Your task to perform on an android device: turn on the 12-hour format for clock Image 0: 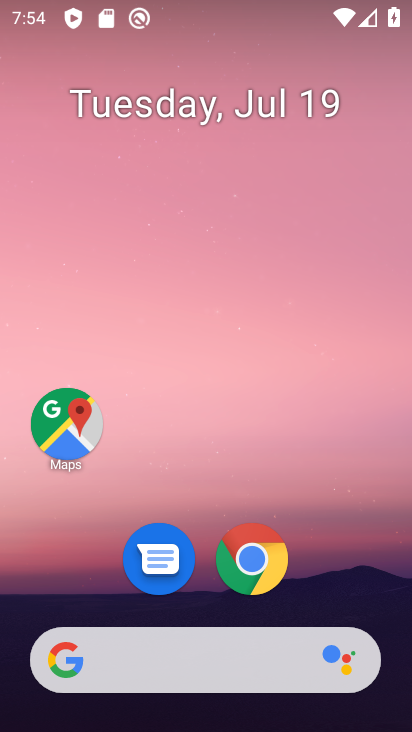
Step 0: drag from (78, 586) to (249, 0)
Your task to perform on an android device: turn on the 12-hour format for clock Image 1: 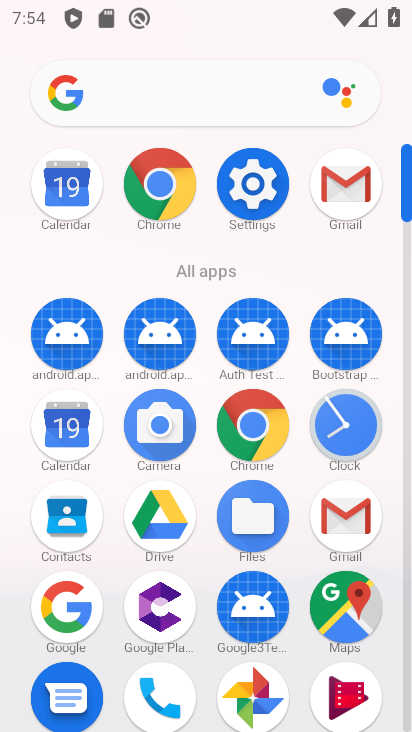
Step 1: click (338, 446)
Your task to perform on an android device: turn on the 12-hour format for clock Image 2: 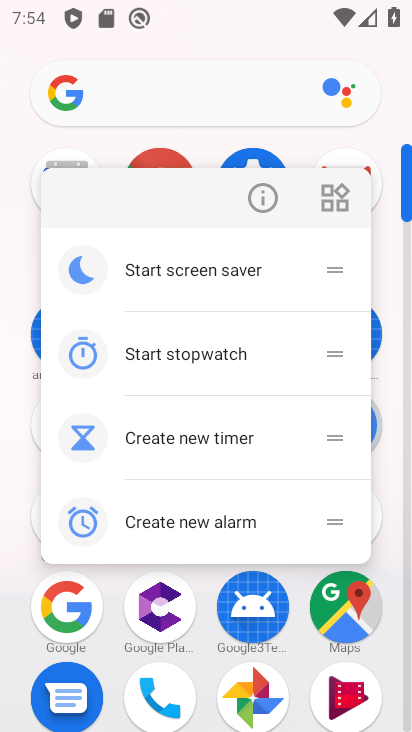
Step 2: click (213, 33)
Your task to perform on an android device: turn on the 12-hour format for clock Image 3: 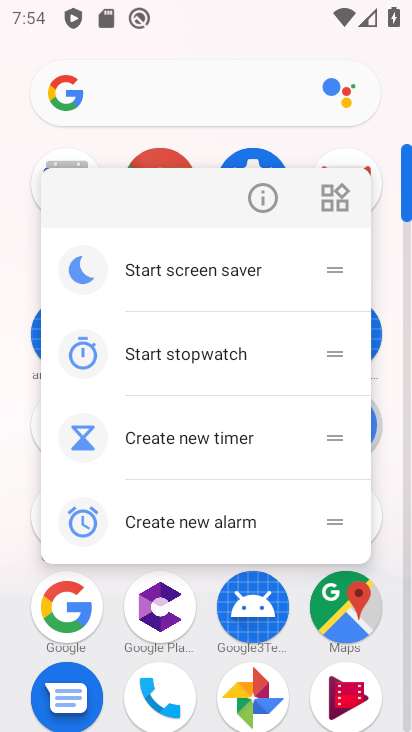
Step 3: click (14, 461)
Your task to perform on an android device: turn on the 12-hour format for clock Image 4: 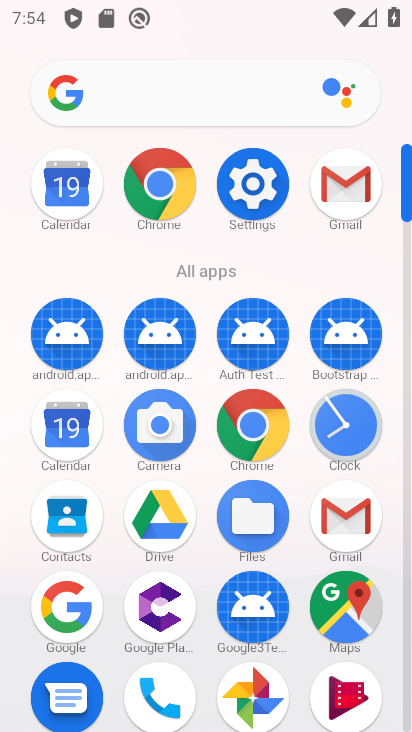
Step 4: click (361, 425)
Your task to perform on an android device: turn on the 12-hour format for clock Image 5: 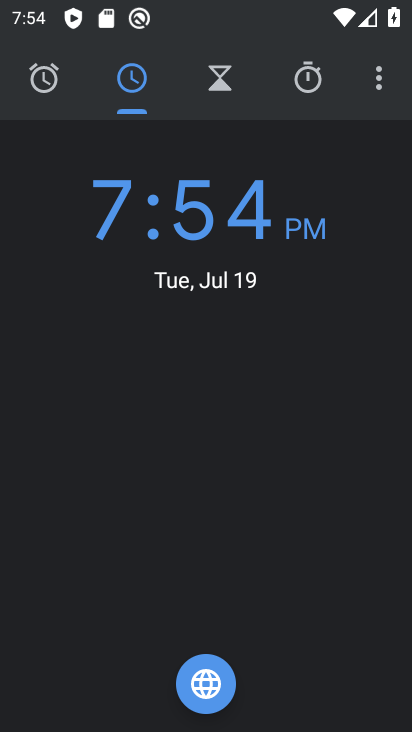
Step 5: click (379, 81)
Your task to perform on an android device: turn on the 12-hour format for clock Image 6: 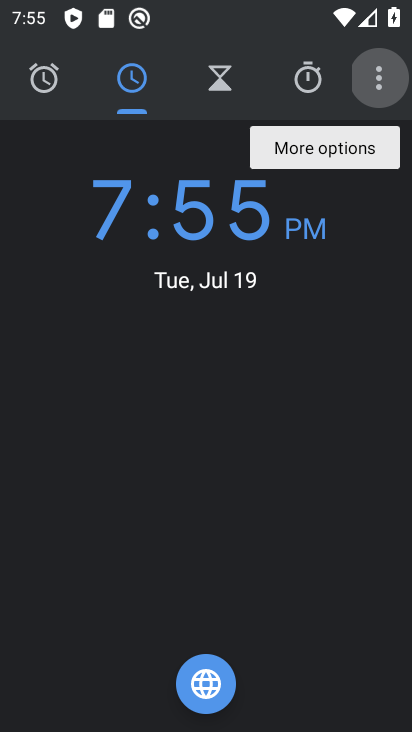
Step 6: click (379, 81)
Your task to perform on an android device: turn on the 12-hour format for clock Image 7: 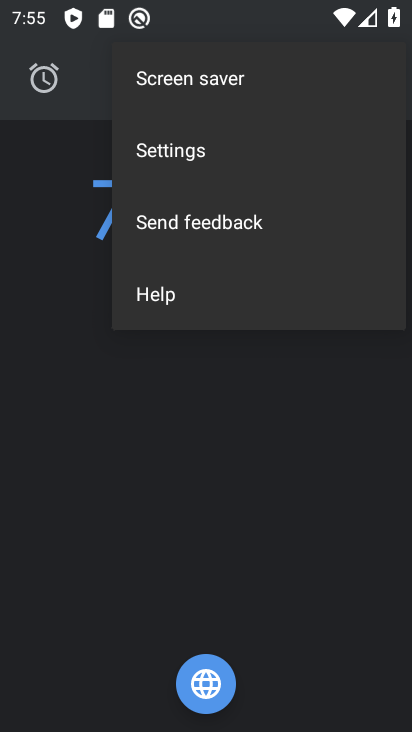
Step 7: click (176, 150)
Your task to perform on an android device: turn on the 12-hour format for clock Image 8: 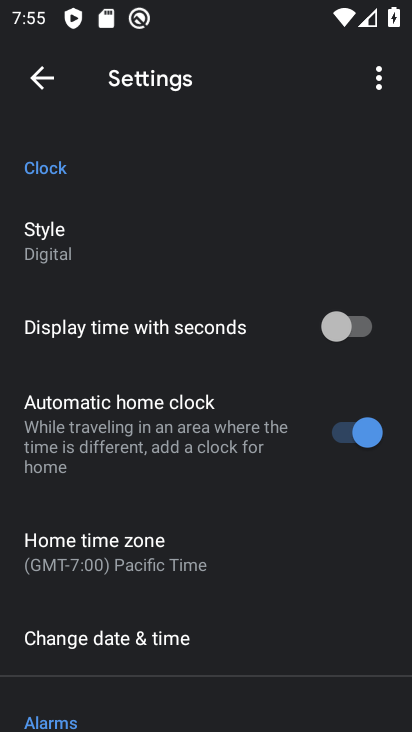
Step 8: click (109, 646)
Your task to perform on an android device: turn on the 12-hour format for clock Image 9: 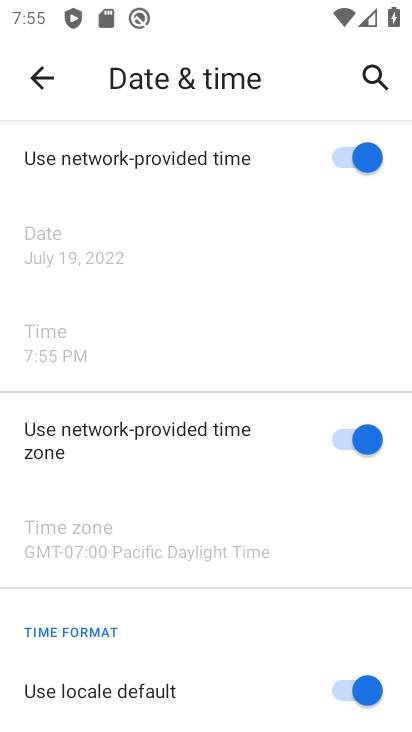
Step 9: task complete